Your task to perform on an android device: make emails show in primary in the gmail app Image 0: 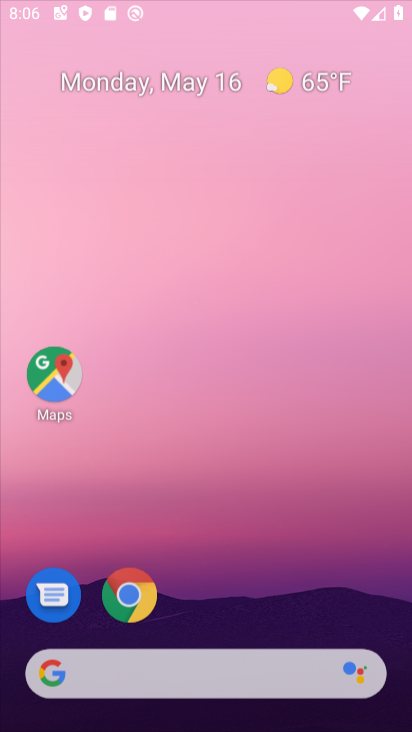
Step 0: click (271, 54)
Your task to perform on an android device: make emails show in primary in the gmail app Image 1: 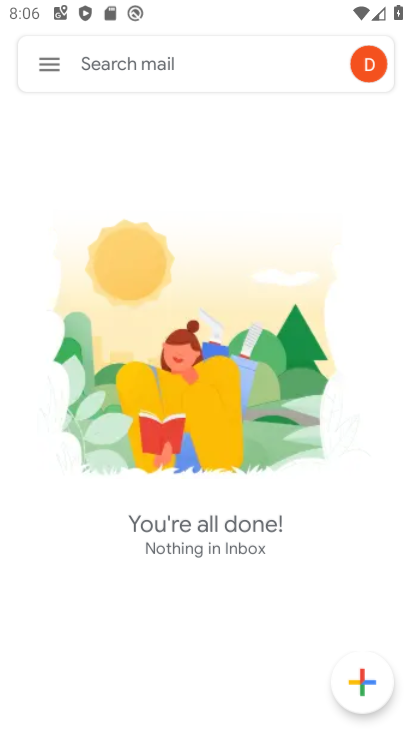
Step 1: drag from (199, 630) to (236, 94)
Your task to perform on an android device: make emails show in primary in the gmail app Image 2: 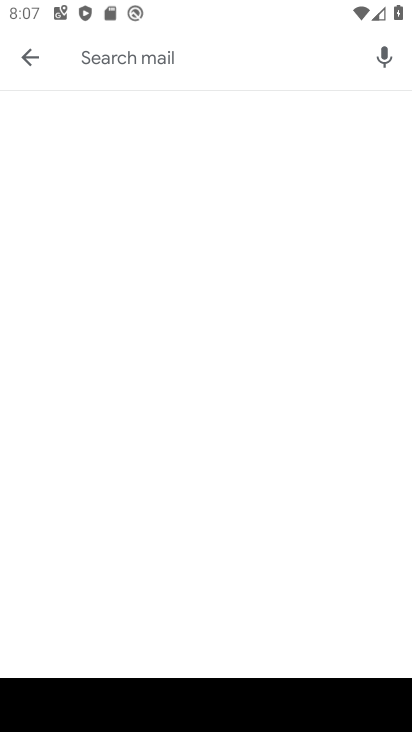
Step 2: drag from (235, 507) to (305, 106)
Your task to perform on an android device: make emails show in primary in the gmail app Image 3: 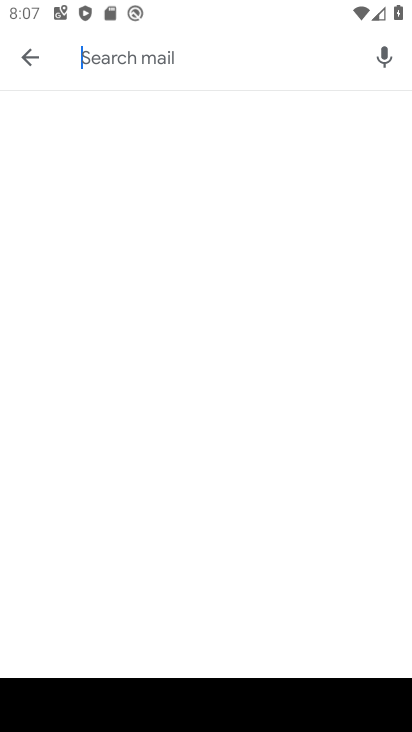
Step 3: press home button
Your task to perform on an android device: make emails show in primary in the gmail app Image 4: 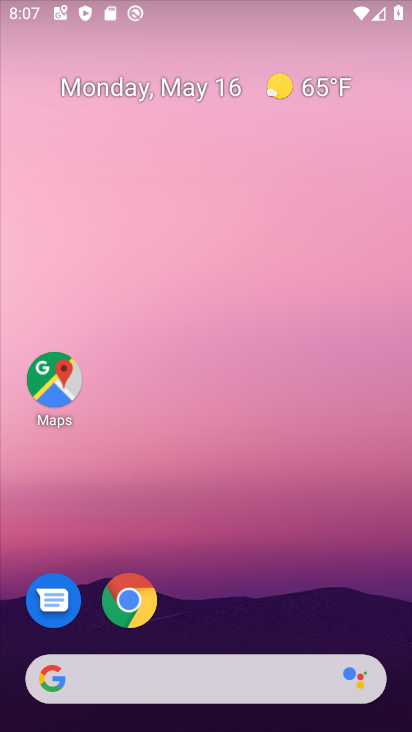
Step 4: drag from (213, 603) to (332, 93)
Your task to perform on an android device: make emails show in primary in the gmail app Image 5: 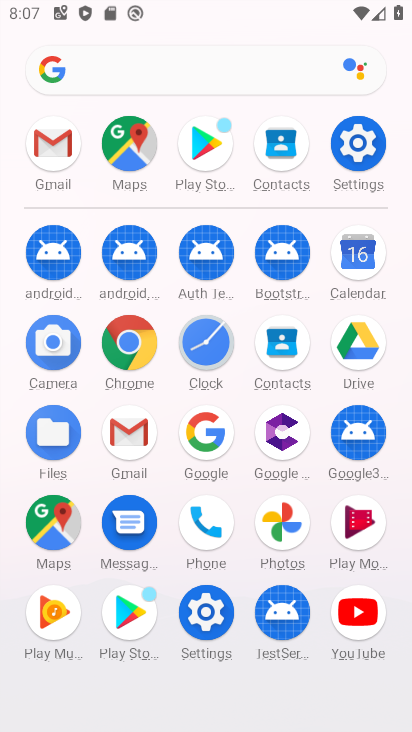
Step 5: click (129, 421)
Your task to perform on an android device: make emails show in primary in the gmail app Image 6: 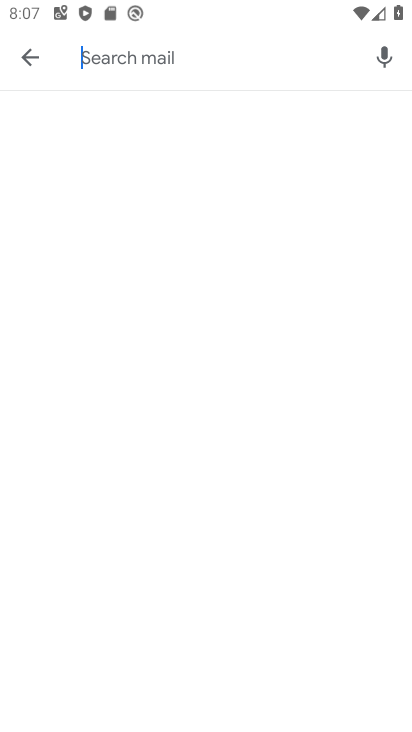
Step 6: click (171, 242)
Your task to perform on an android device: make emails show in primary in the gmail app Image 7: 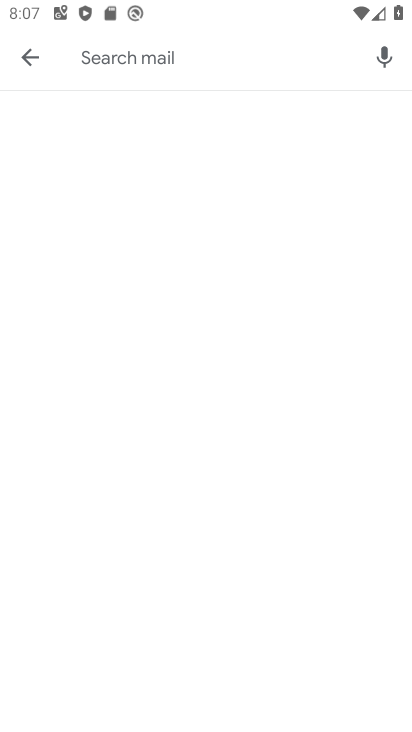
Step 7: click (35, 48)
Your task to perform on an android device: make emails show in primary in the gmail app Image 8: 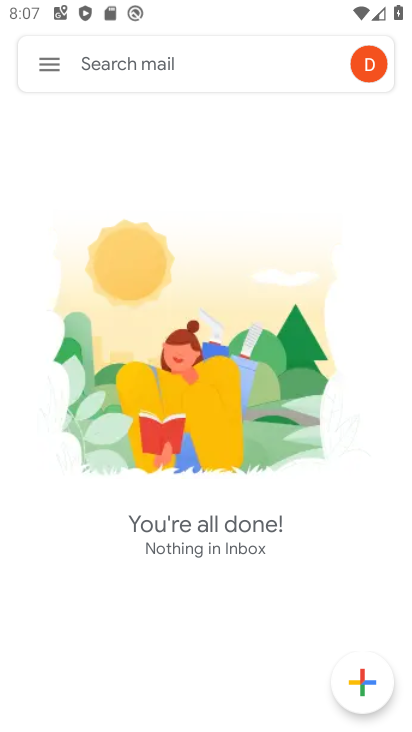
Step 8: click (51, 72)
Your task to perform on an android device: make emails show in primary in the gmail app Image 9: 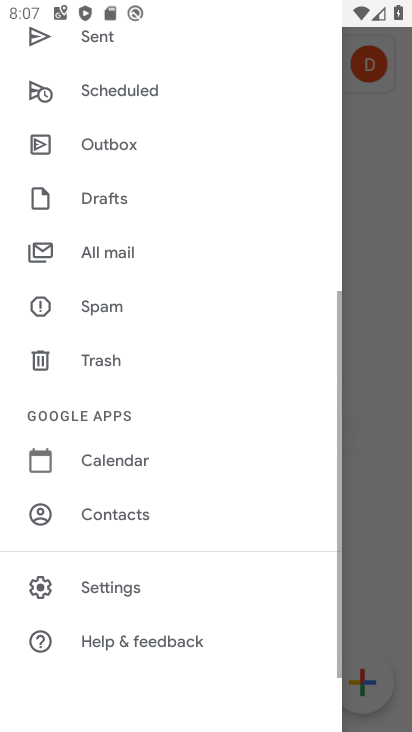
Step 9: drag from (115, 105) to (123, 607)
Your task to perform on an android device: make emails show in primary in the gmail app Image 10: 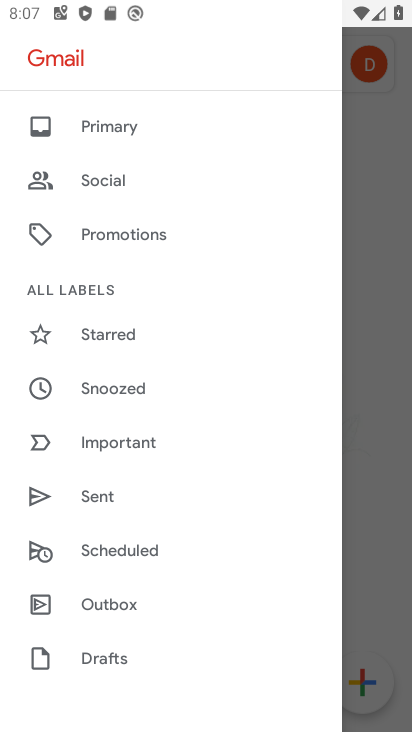
Step 10: click (111, 123)
Your task to perform on an android device: make emails show in primary in the gmail app Image 11: 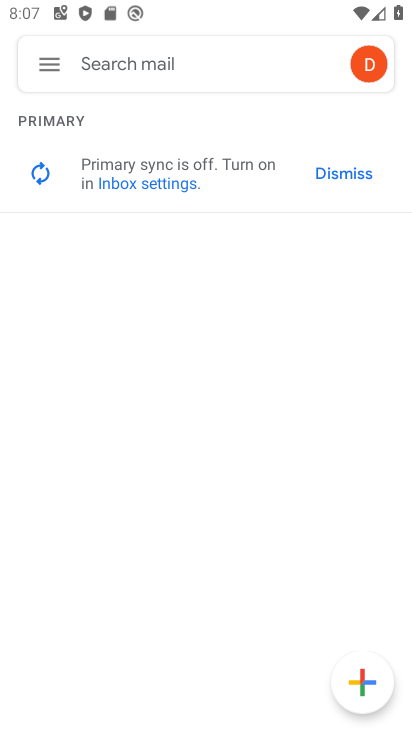
Step 11: task complete